Your task to perform on an android device: add a contact Image 0: 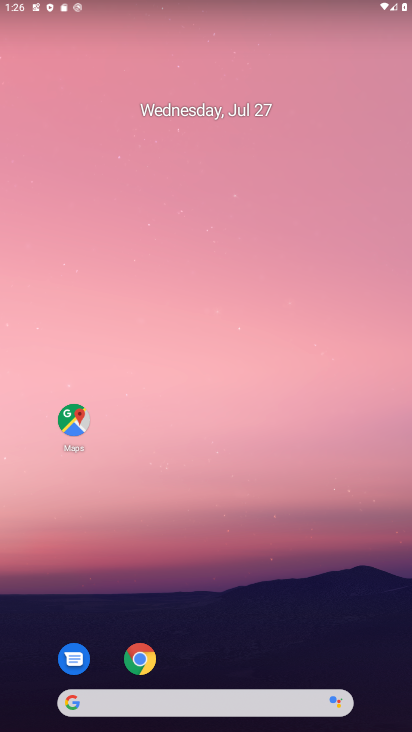
Step 0: drag from (351, 643) to (99, 98)
Your task to perform on an android device: add a contact Image 1: 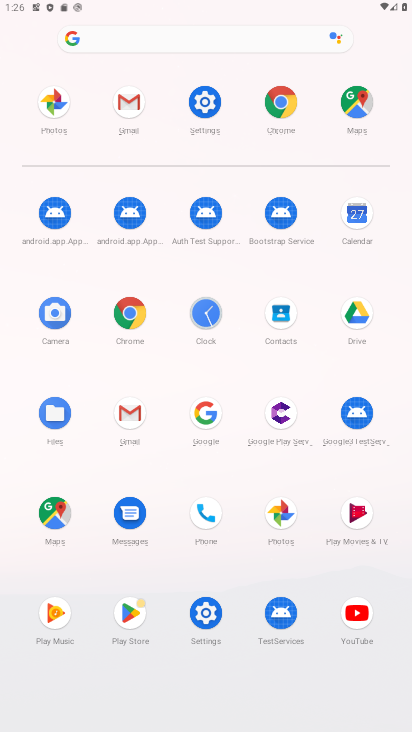
Step 1: click (288, 314)
Your task to perform on an android device: add a contact Image 2: 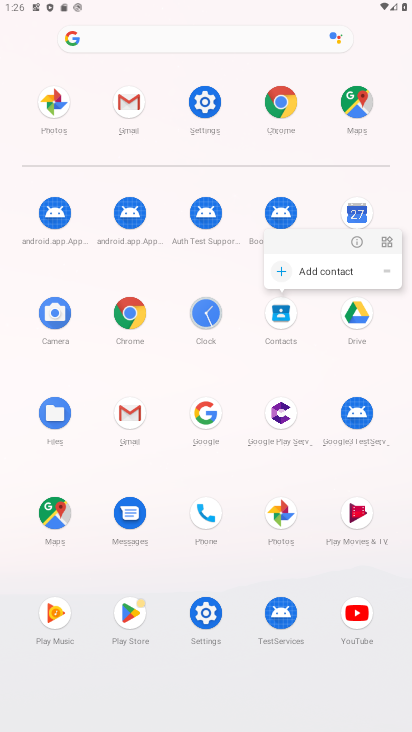
Step 2: click (288, 314)
Your task to perform on an android device: add a contact Image 3: 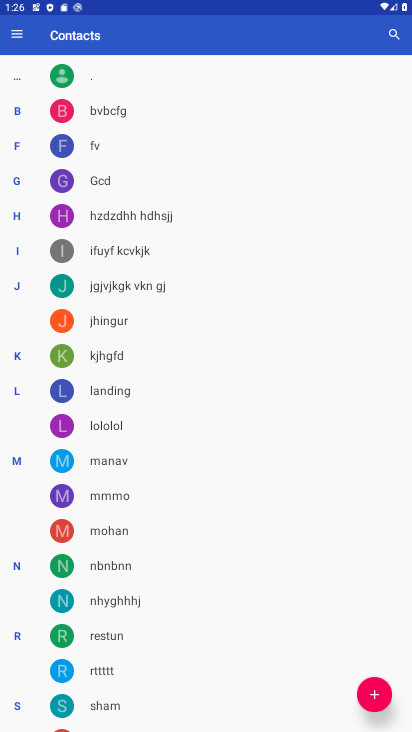
Step 3: click (373, 690)
Your task to perform on an android device: add a contact Image 4: 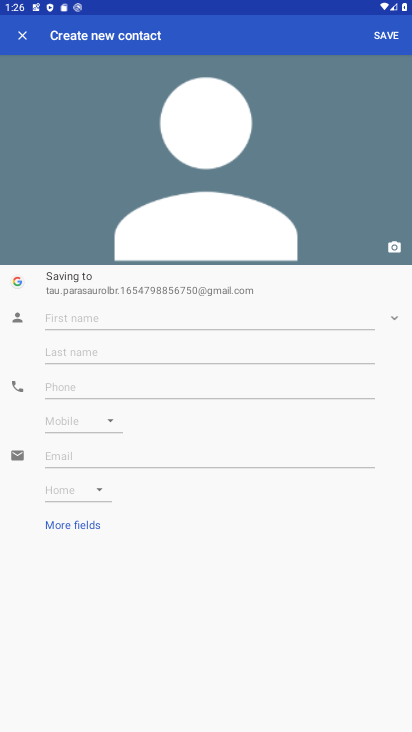
Step 4: click (184, 317)
Your task to perform on an android device: add a contact Image 5: 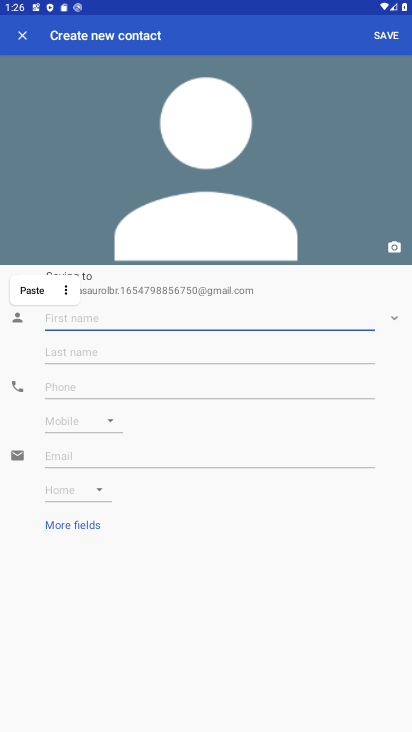
Step 5: type "kheer"
Your task to perform on an android device: add a contact Image 6: 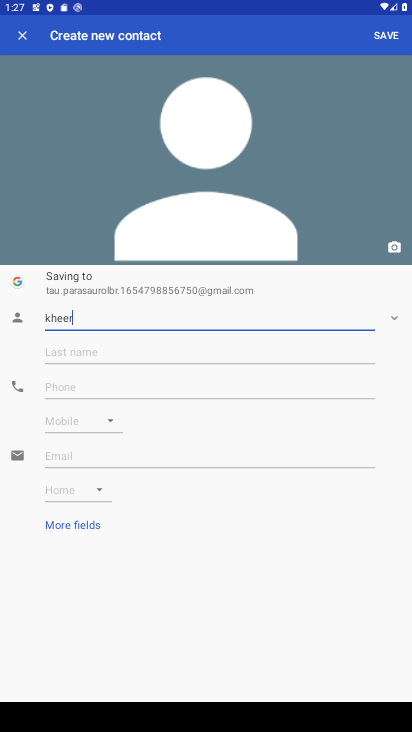
Step 6: click (390, 39)
Your task to perform on an android device: add a contact Image 7: 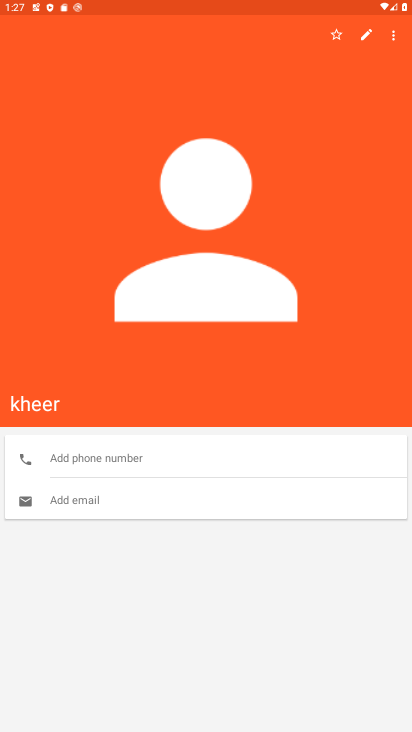
Step 7: task complete